Your task to perform on an android device: What's the news? Image 0: 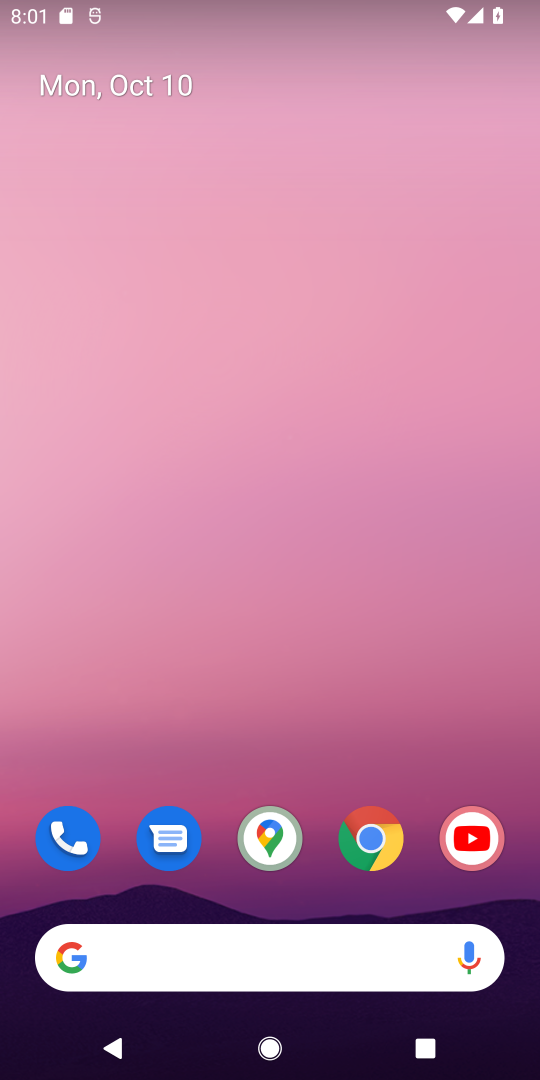
Step 0: click (366, 845)
Your task to perform on an android device: What's the news? Image 1: 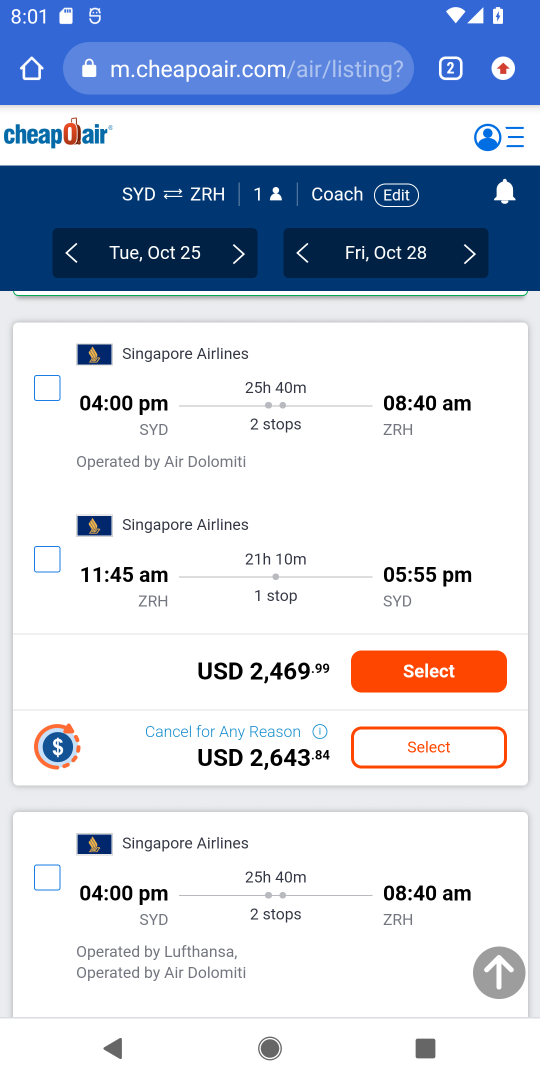
Step 1: click (230, 48)
Your task to perform on an android device: What's the news? Image 2: 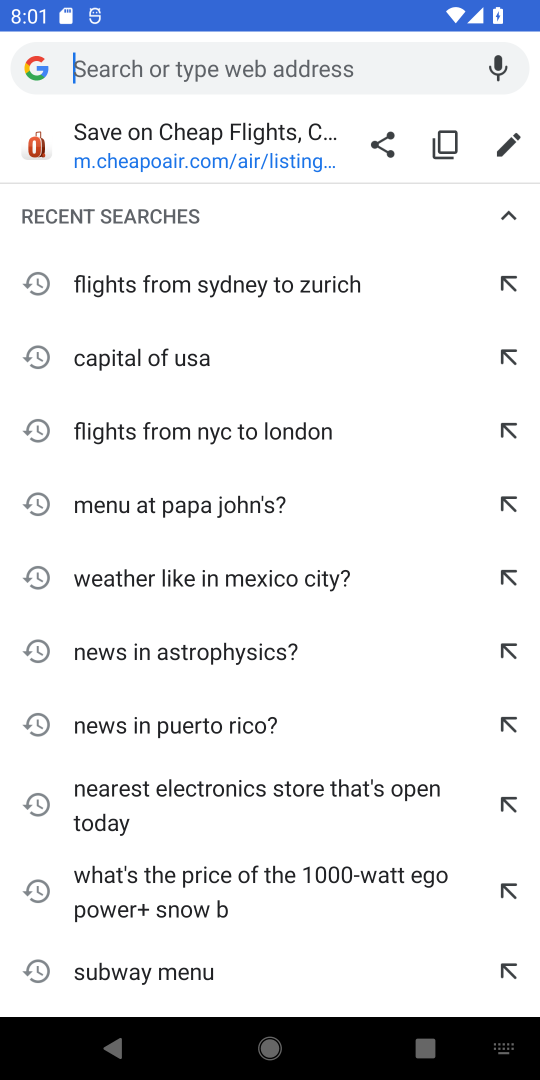
Step 2: type "what is the news"
Your task to perform on an android device: What's the news? Image 3: 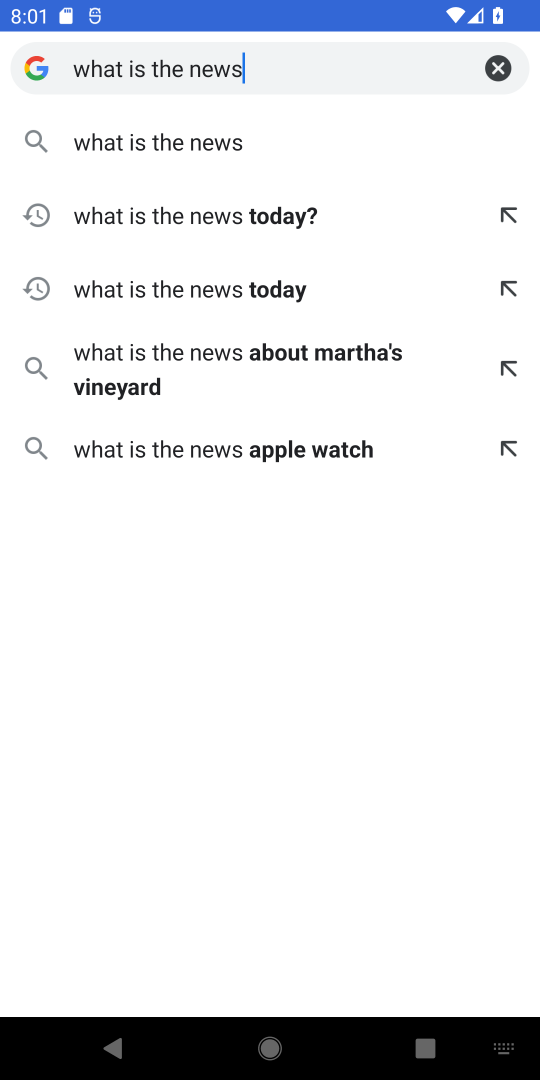
Step 3: click (120, 144)
Your task to perform on an android device: What's the news? Image 4: 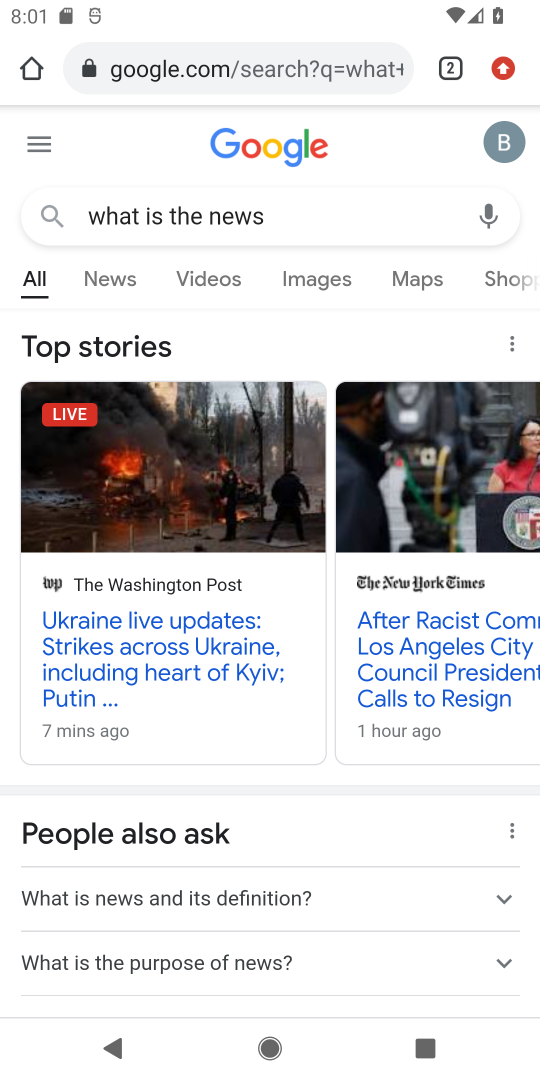
Step 4: click (132, 650)
Your task to perform on an android device: What's the news? Image 5: 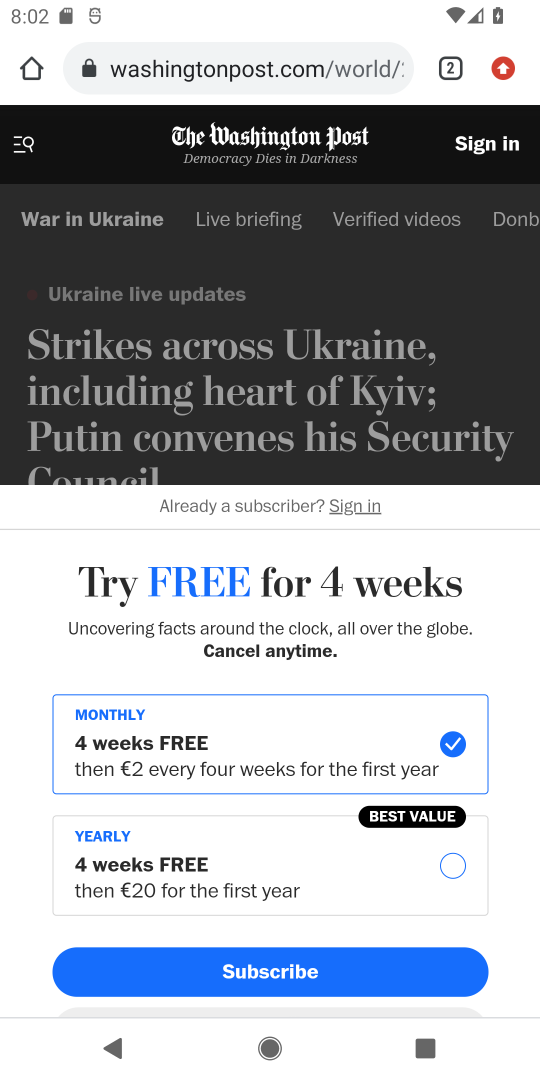
Step 5: click (264, 95)
Your task to perform on an android device: What's the news? Image 6: 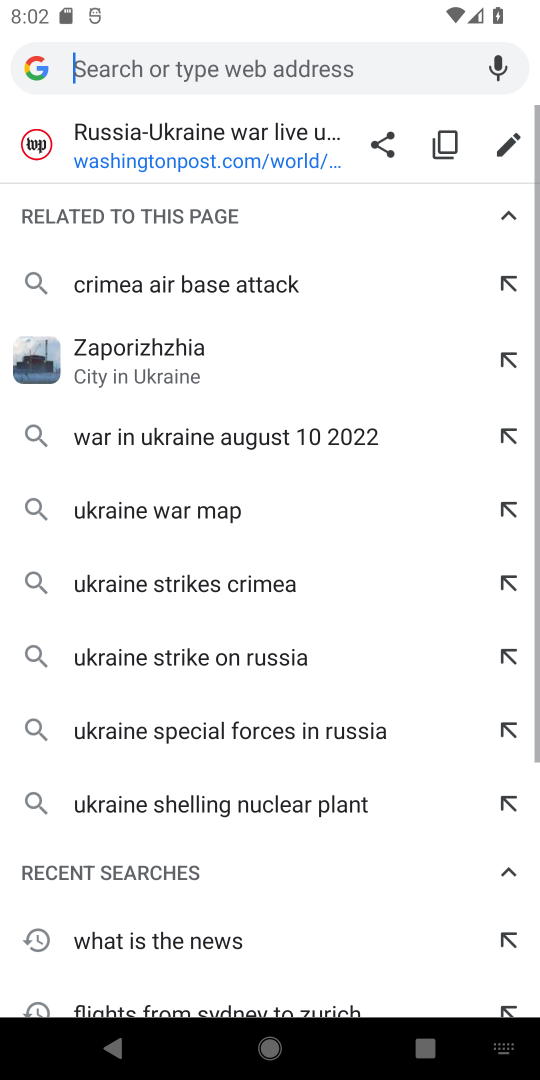
Step 6: press back button
Your task to perform on an android device: What's the news? Image 7: 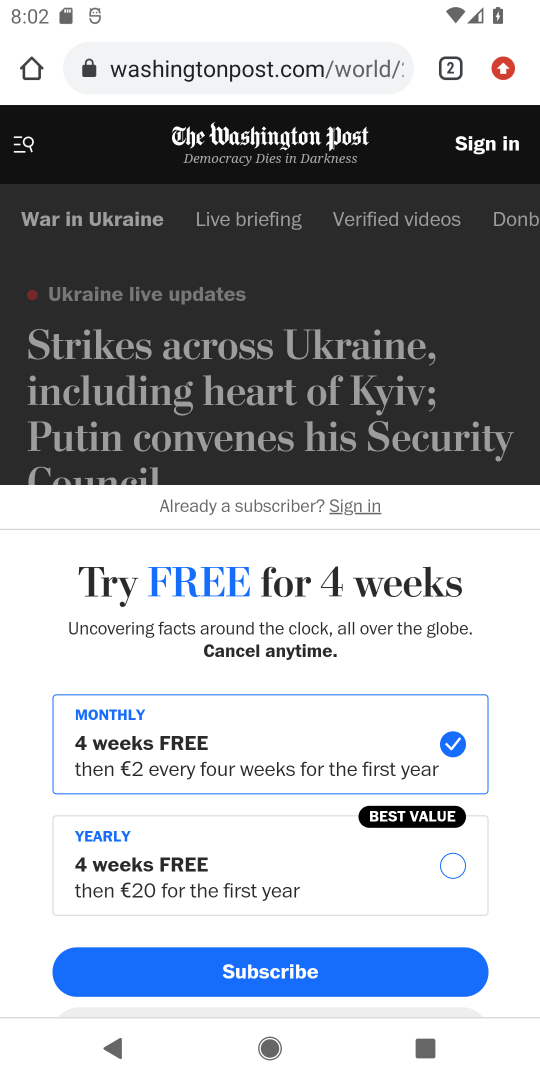
Step 7: press back button
Your task to perform on an android device: What's the news? Image 8: 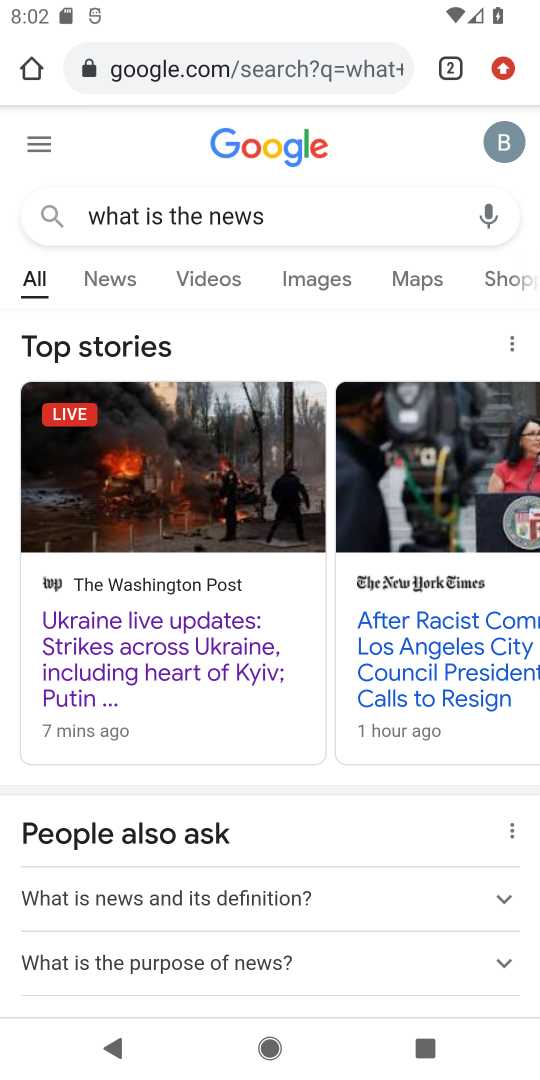
Step 8: drag from (262, 792) to (253, 143)
Your task to perform on an android device: What's the news? Image 9: 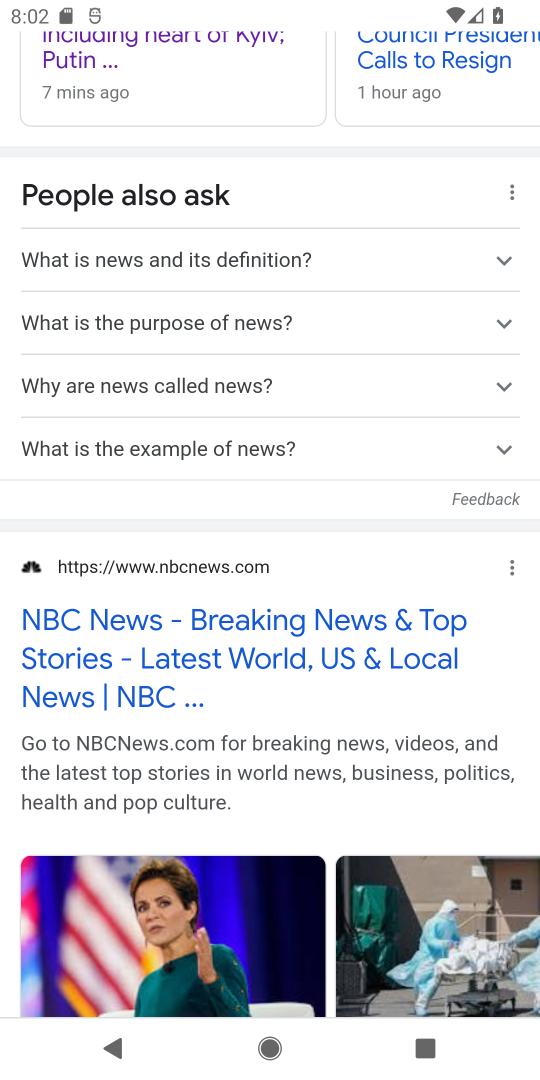
Step 9: click (183, 655)
Your task to perform on an android device: What's the news? Image 10: 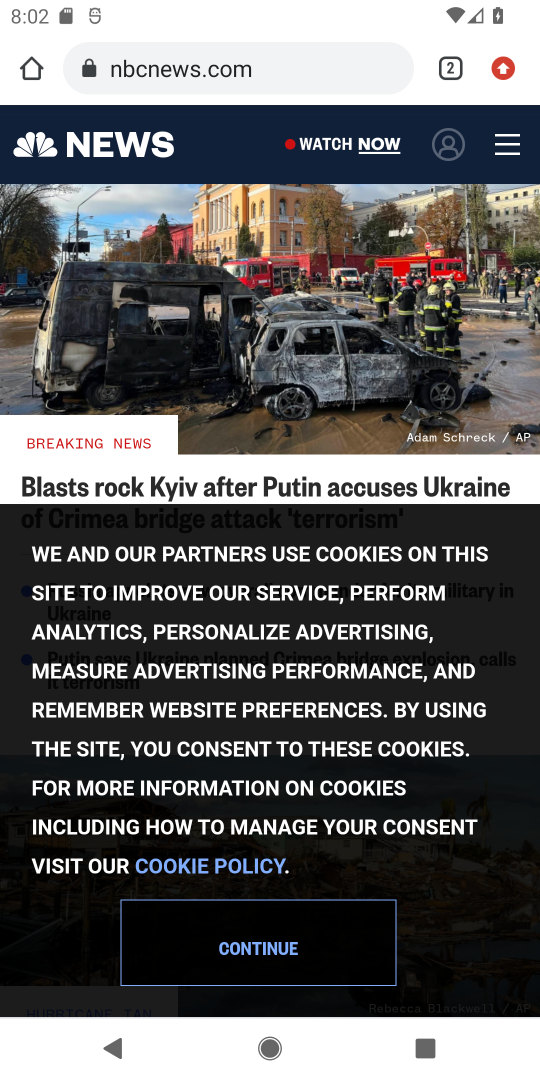
Step 10: click (259, 950)
Your task to perform on an android device: What's the news? Image 11: 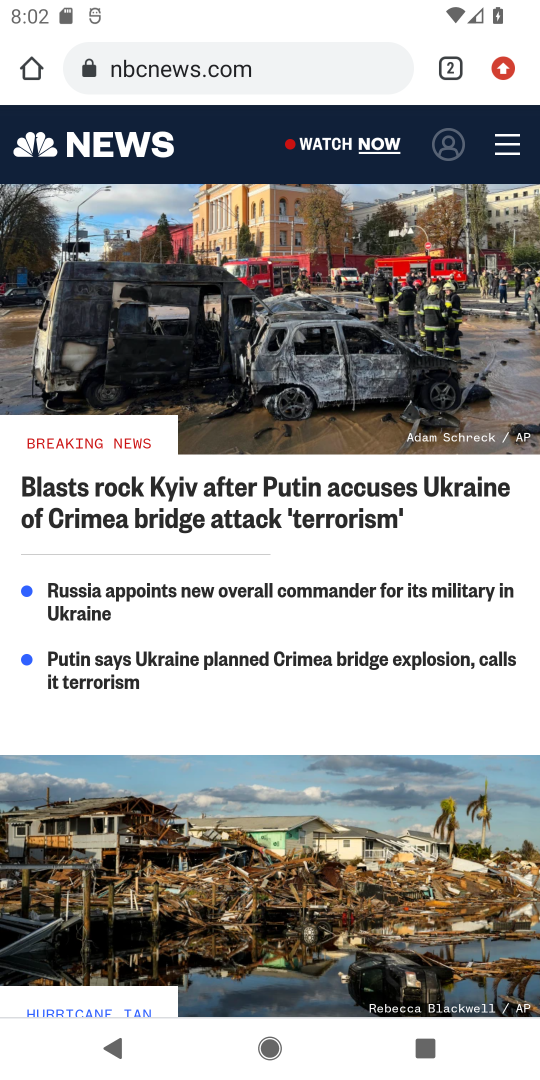
Step 11: task complete